Your task to perform on an android device: turn on bluetooth scan Image 0: 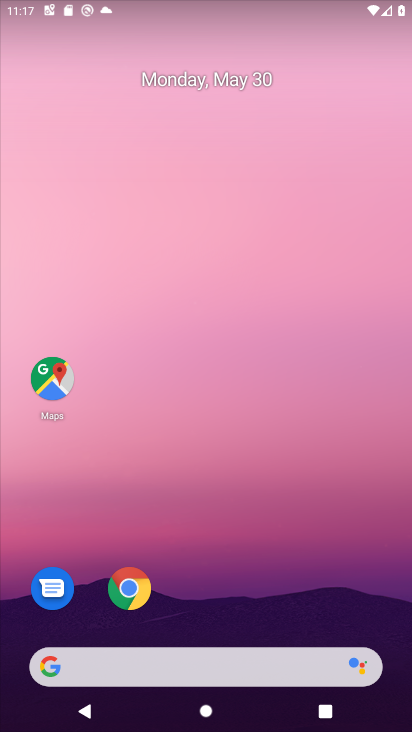
Step 0: drag from (279, 691) to (291, 176)
Your task to perform on an android device: turn on bluetooth scan Image 1: 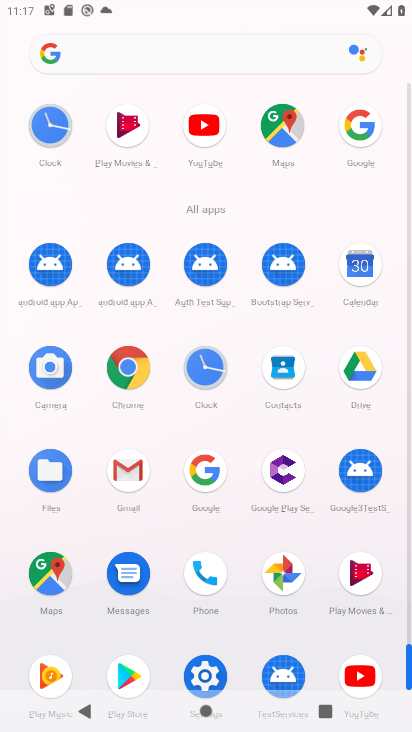
Step 1: click (210, 669)
Your task to perform on an android device: turn on bluetooth scan Image 2: 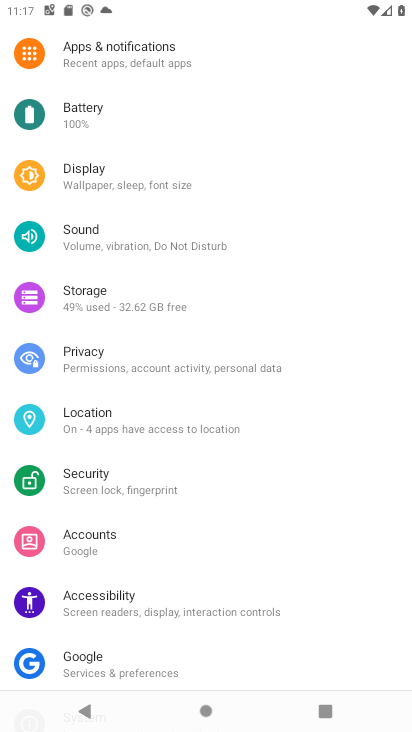
Step 2: click (134, 411)
Your task to perform on an android device: turn on bluetooth scan Image 3: 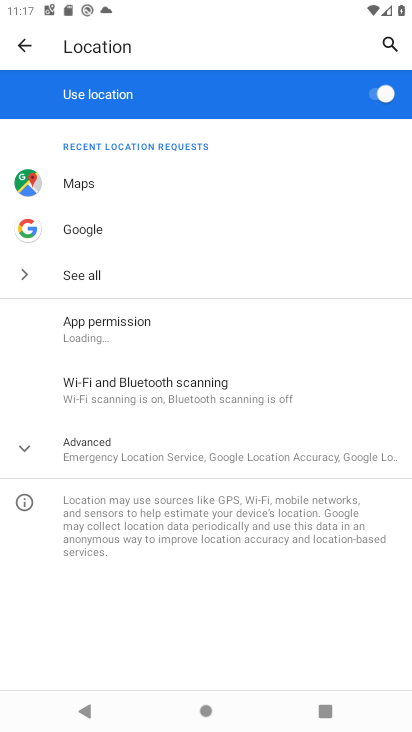
Step 3: click (270, 384)
Your task to perform on an android device: turn on bluetooth scan Image 4: 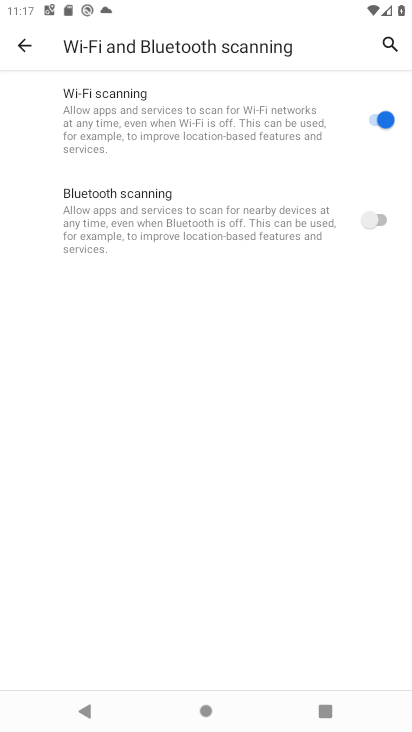
Step 4: click (388, 218)
Your task to perform on an android device: turn on bluetooth scan Image 5: 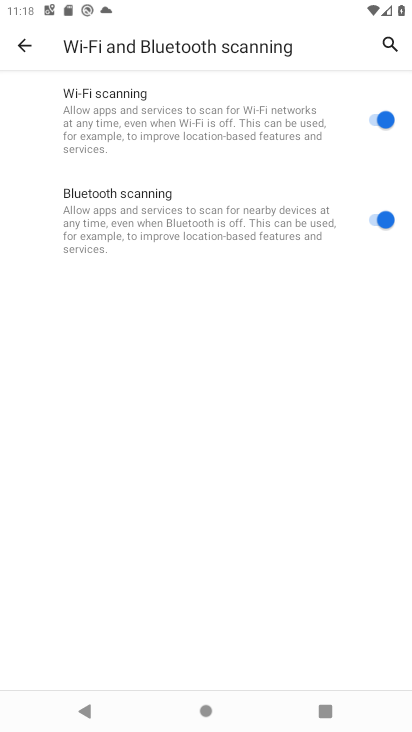
Step 5: task complete